Your task to perform on an android device: Open Google Maps Image 0: 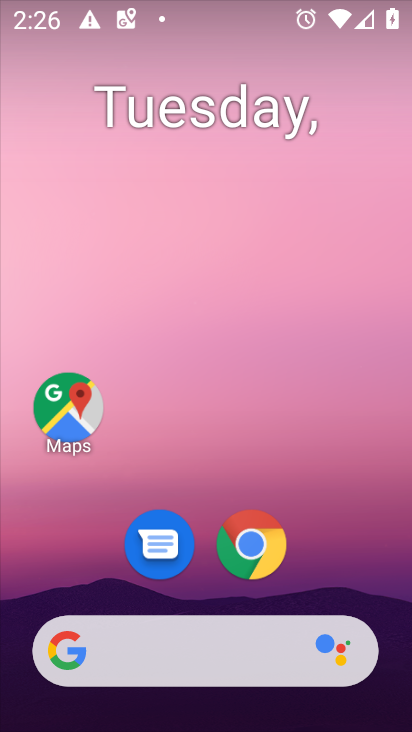
Step 0: drag from (344, 546) to (325, 45)
Your task to perform on an android device: Open Google Maps Image 1: 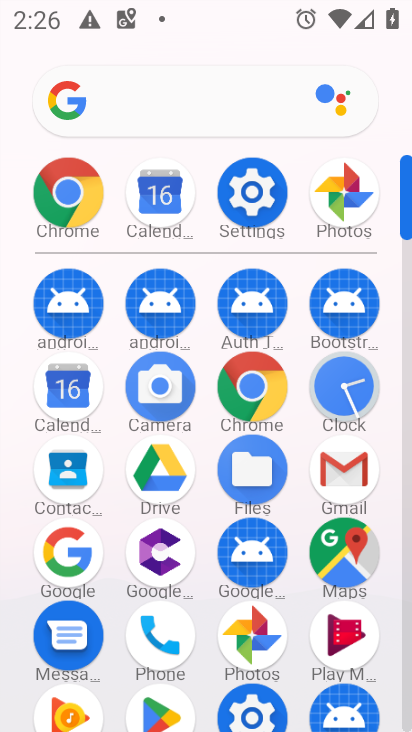
Step 1: click (327, 568)
Your task to perform on an android device: Open Google Maps Image 2: 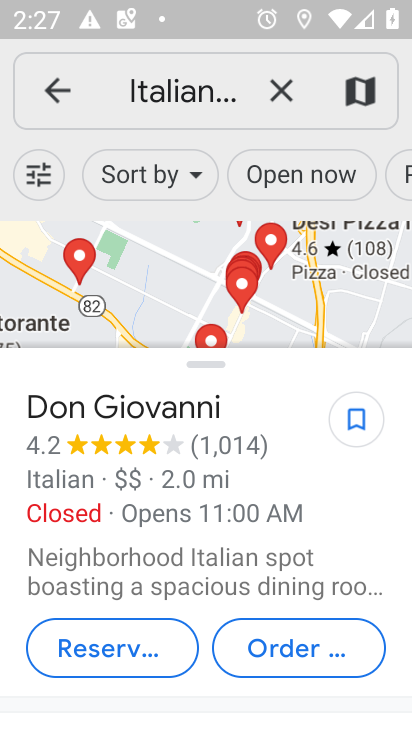
Step 2: task complete